Your task to perform on an android device: Search for vegetarian restaurants on Maps Image 0: 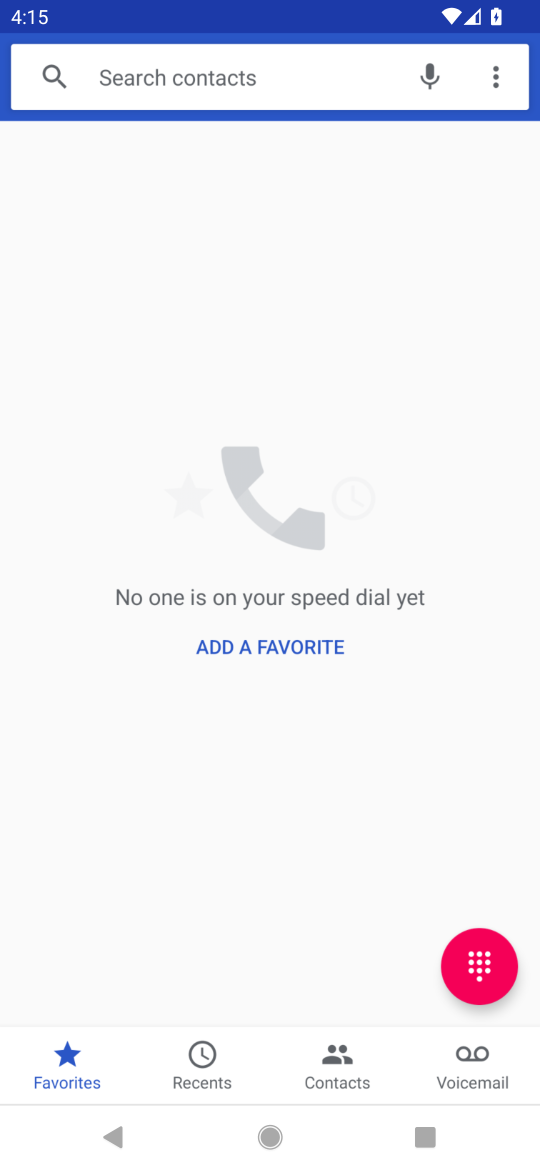
Step 0: press home button
Your task to perform on an android device: Search for vegetarian restaurants on Maps Image 1: 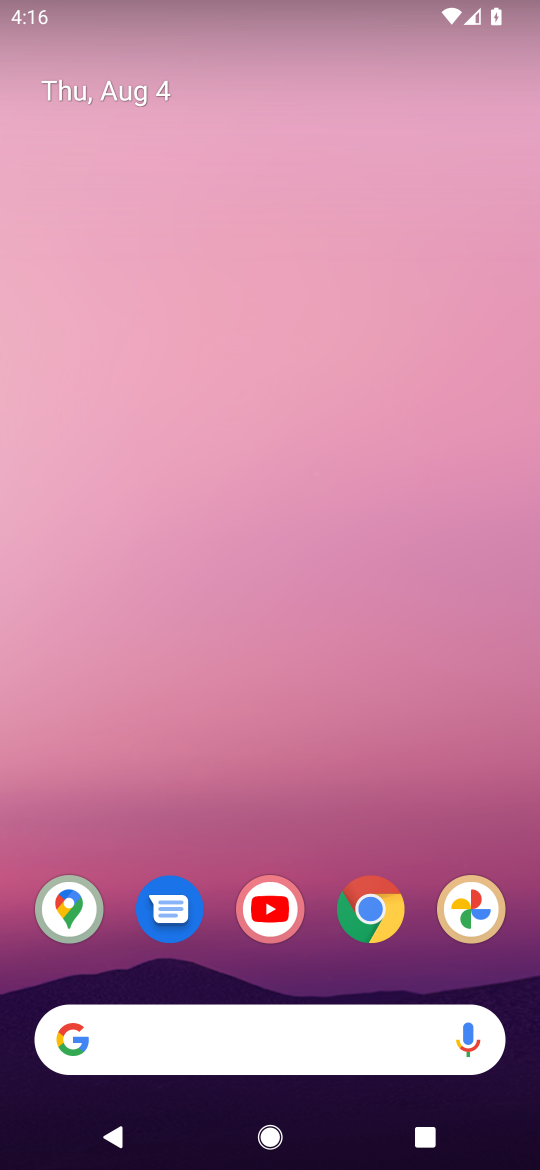
Step 1: drag from (387, 780) to (528, 562)
Your task to perform on an android device: Search for vegetarian restaurants on Maps Image 2: 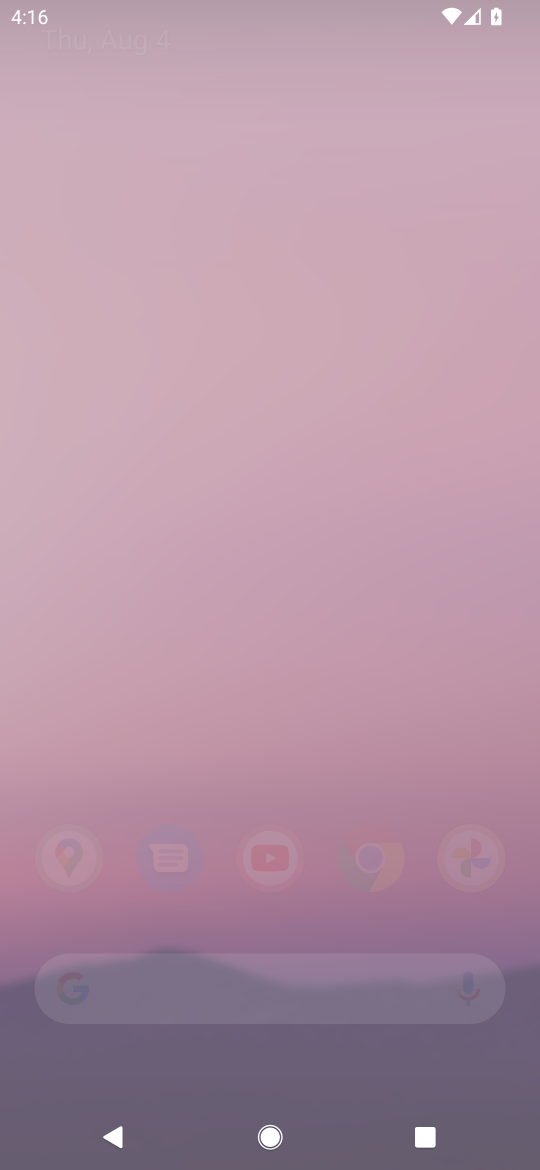
Step 2: click (478, 582)
Your task to perform on an android device: Search for vegetarian restaurants on Maps Image 3: 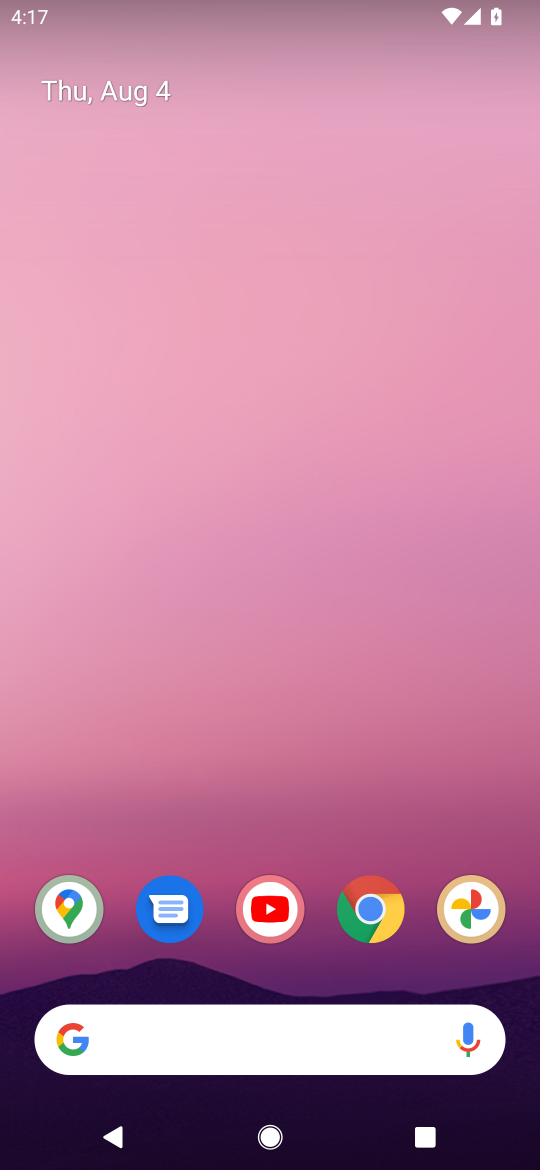
Step 3: press home button
Your task to perform on an android device: Search for vegetarian restaurants on Maps Image 4: 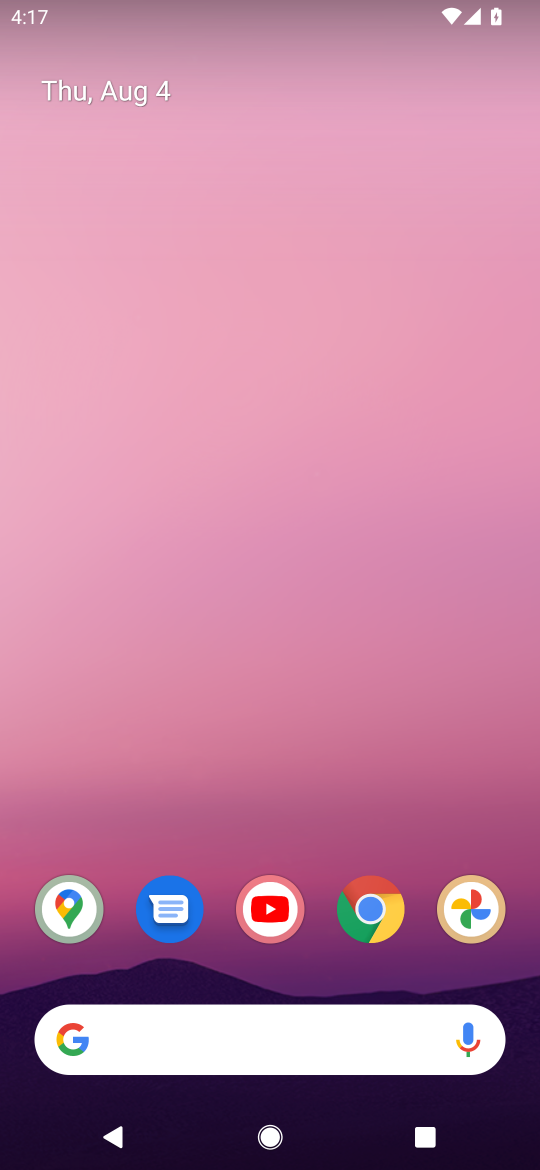
Step 4: drag from (415, 749) to (469, 37)
Your task to perform on an android device: Search for vegetarian restaurants on Maps Image 5: 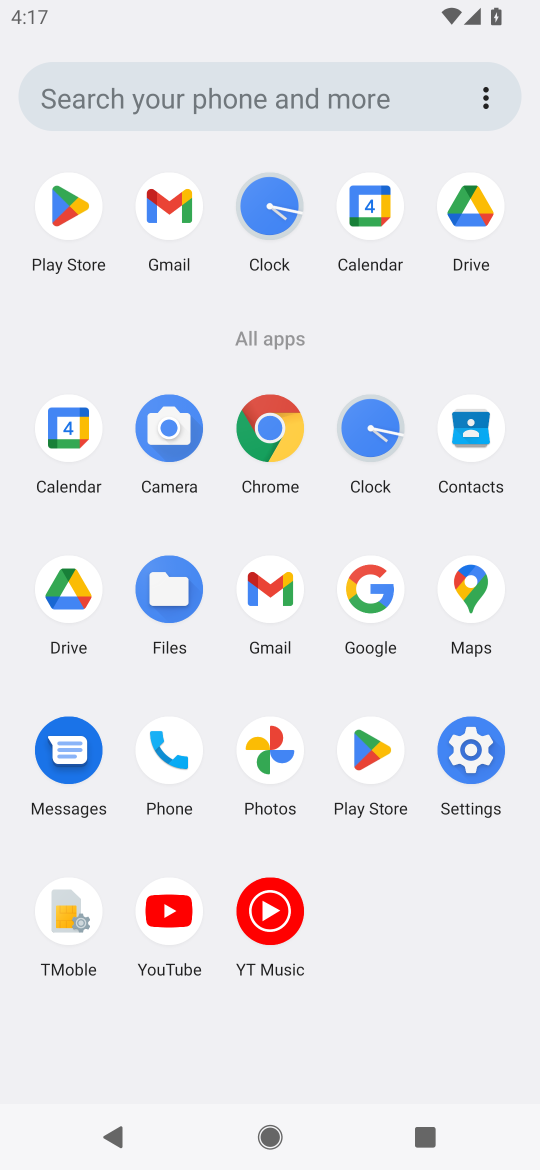
Step 5: click (456, 576)
Your task to perform on an android device: Search for vegetarian restaurants on Maps Image 6: 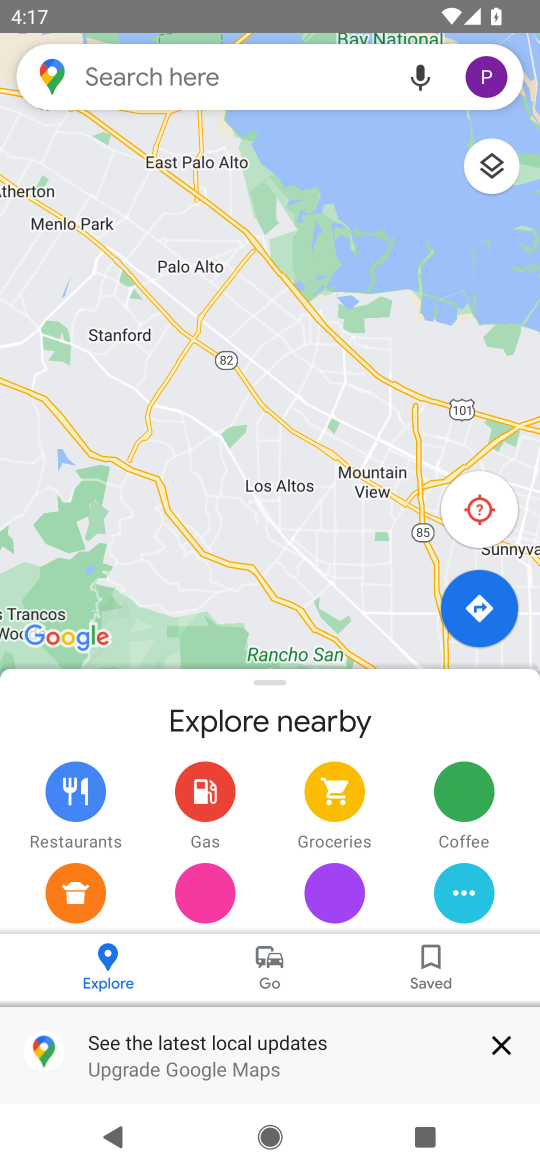
Step 6: click (137, 68)
Your task to perform on an android device: Search for vegetarian restaurants on Maps Image 7: 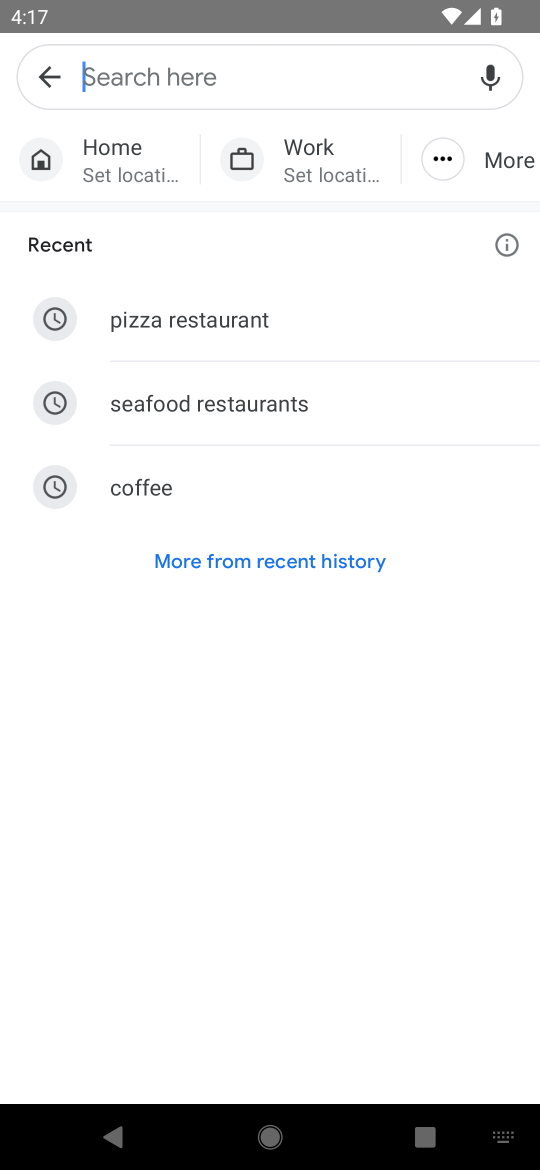
Step 7: type " vegetarian restaurants"
Your task to perform on an android device: Search for vegetarian restaurants on Maps Image 8: 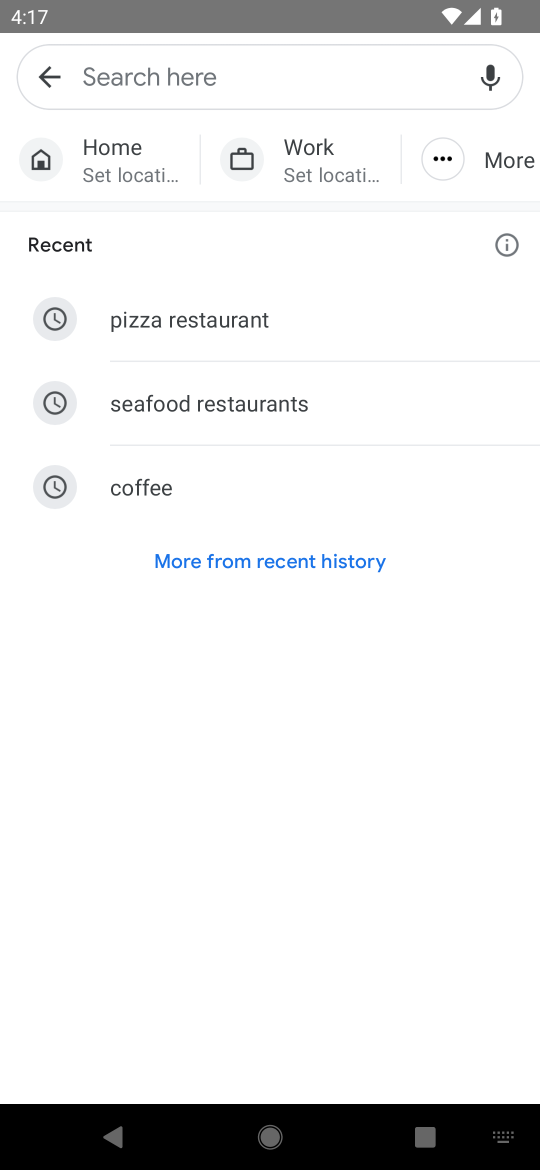
Step 8: click (287, 71)
Your task to perform on an android device: Search for vegetarian restaurants on Maps Image 9: 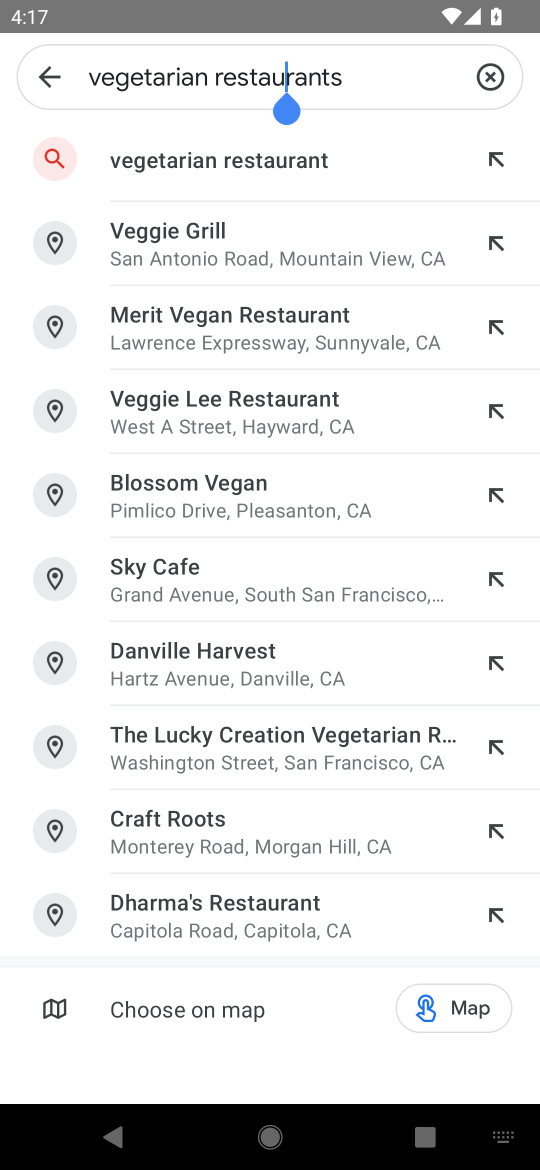
Step 9: press enter
Your task to perform on an android device: Search for vegetarian restaurants on Maps Image 10: 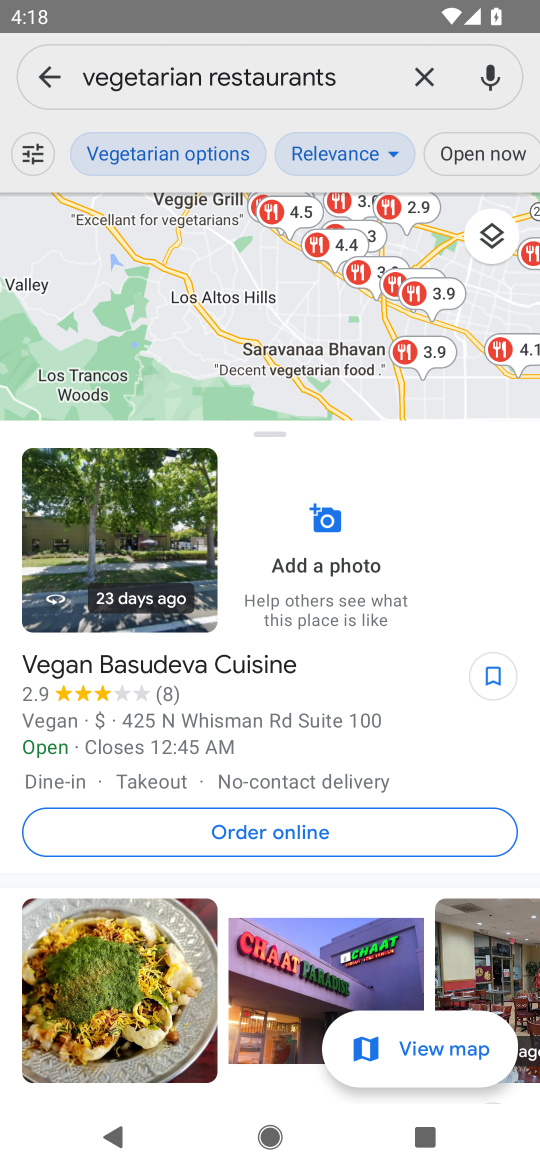
Step 10: task complete